Your task to perform on an android device: Open battery settings Image 0: 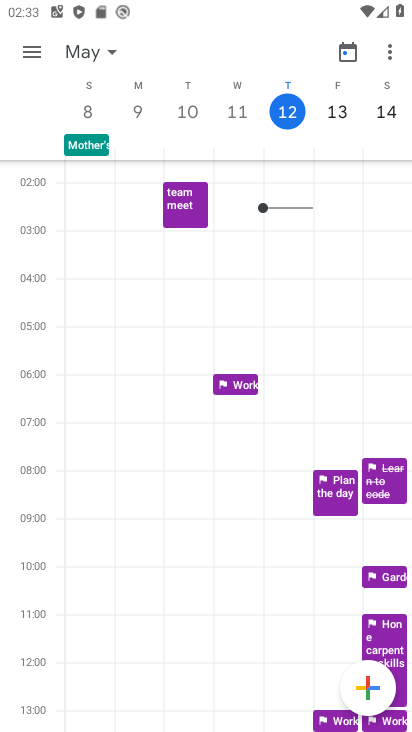
Step 0: press home button
Your task to perform on an android device: Open battery settings Image 1: 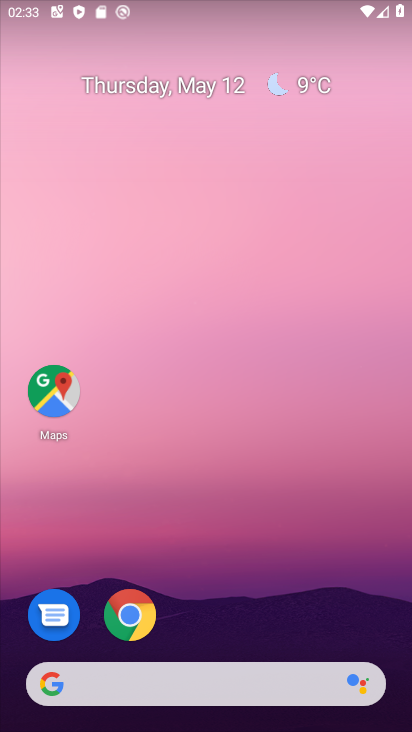
Step 1: drag from (169, 658) to (189, 177)
Your task to perform on an android device: Open battery settings Image 2: 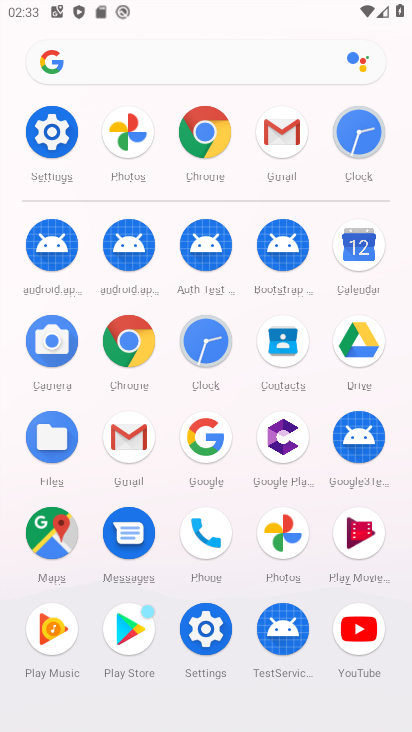
Step 2: click (50, 135)
Your task to perform on an android device: Open battery settings Image 3: 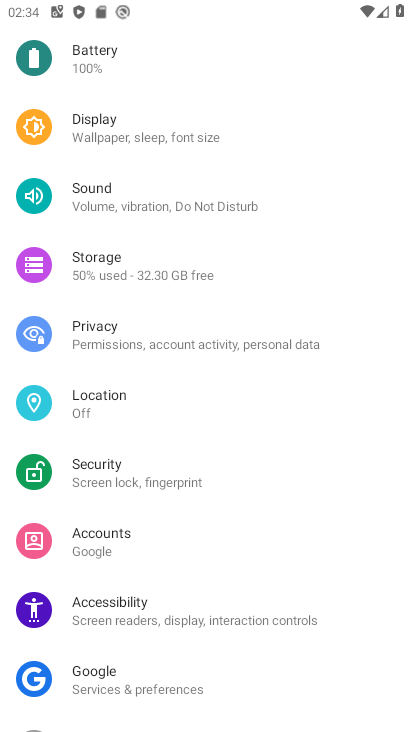
Step 3: click (81, 45)
Your task to perform on an android device: Open battery settings Image 4: 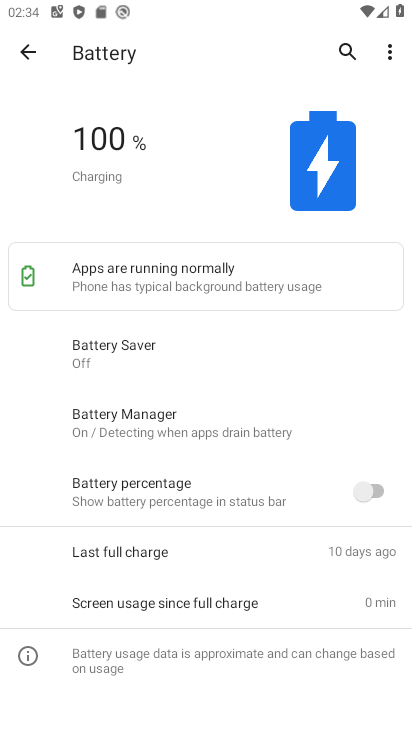
Step 4: task complete